Your task to perform on an android device: Open eBay Image 0: 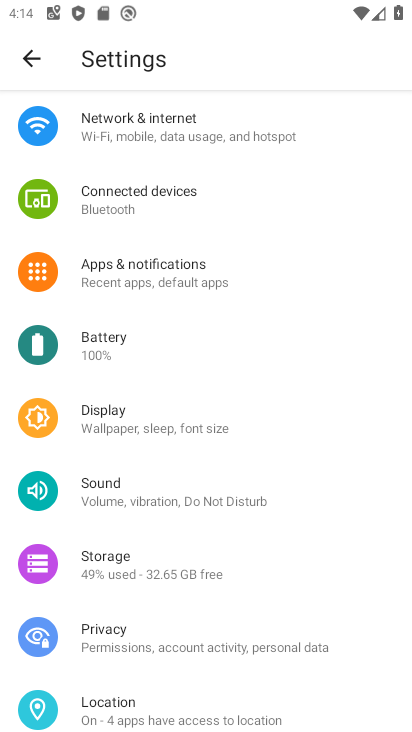
Step 0: press home button
Your task to perform on an android device: Open eBay Image 1: 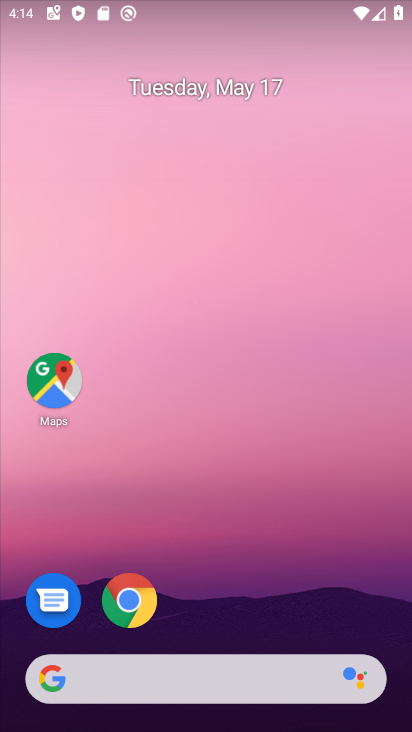
Step 1: click (123, 600)
Your task to perform on an android device: Open eBay Image 2: 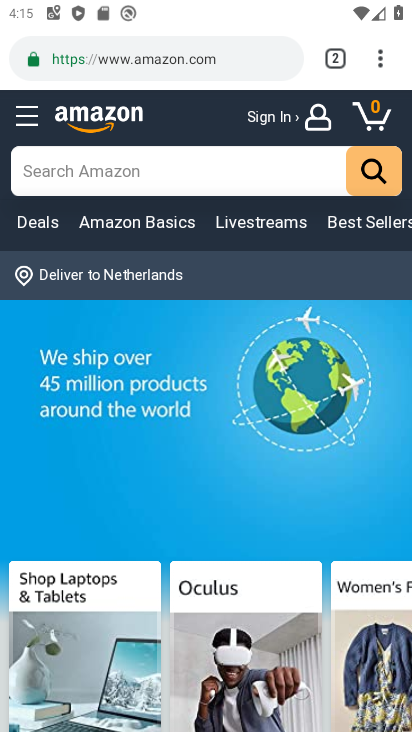
Step 2: click (186, 54)
Your task to perform on an android device: Open eBay Image 3: 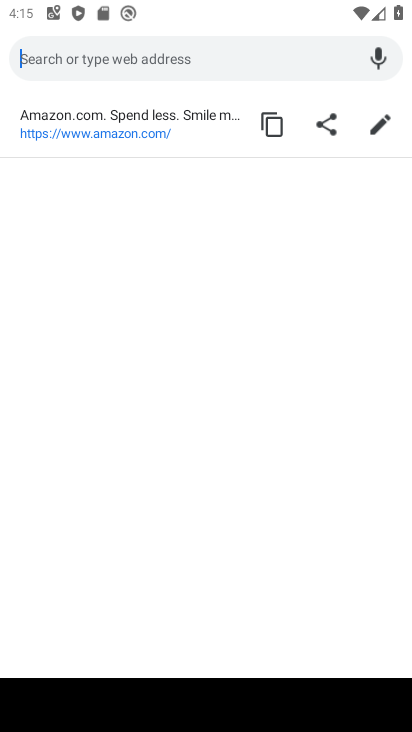
Step 3: type "eBay"
Your task to perform on an android device: Open eBay Image 4: 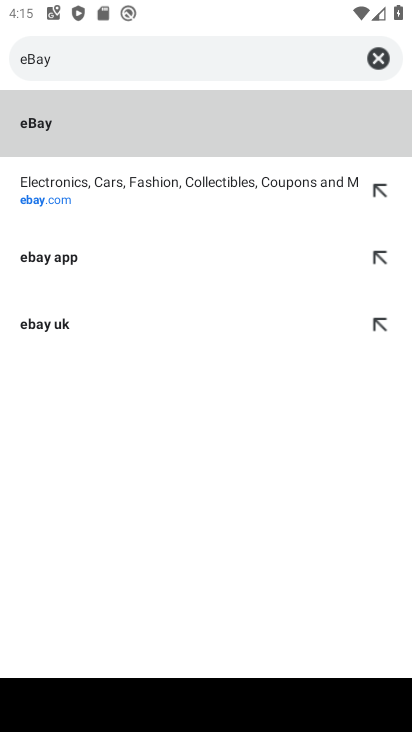
Step 4: click (68, 110)
Your task to perform on an android device: Open eBay Image 5: 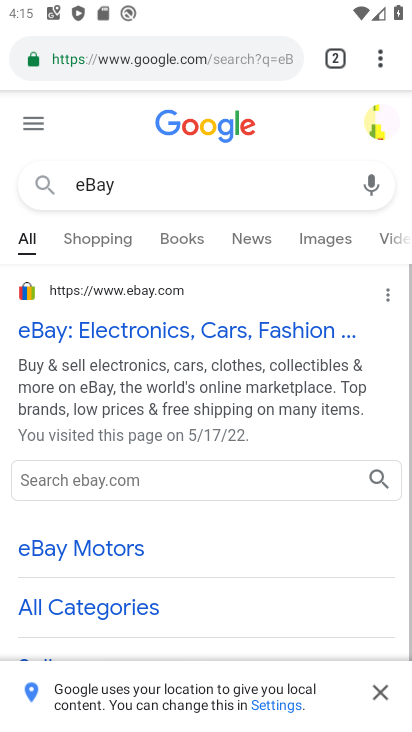
Step 5: click (383, 687)
Your task to perform on an android device: Open eBay Image 6: 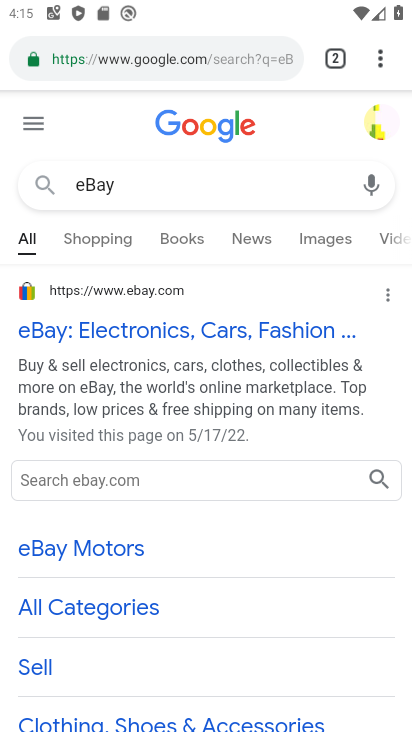
Step 6: task complete